Your task to perform on an android device: Search for pizza restaurants on Maps Image 0: 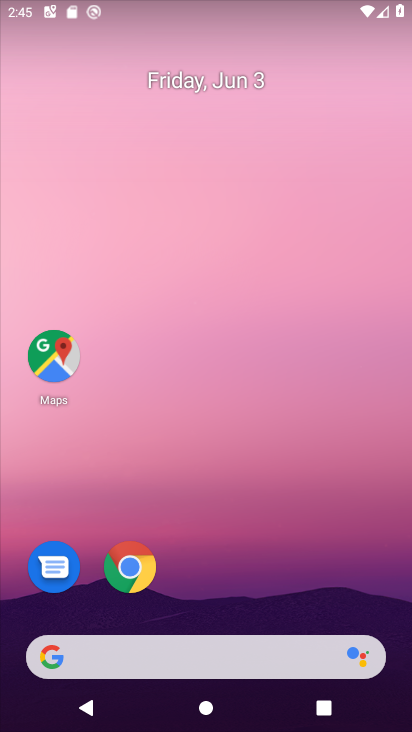
Step 0: drag from (226, 611) to (204, 238)
Your task to perform on an android device: Search for pizza restaurants on Maps Image 1: 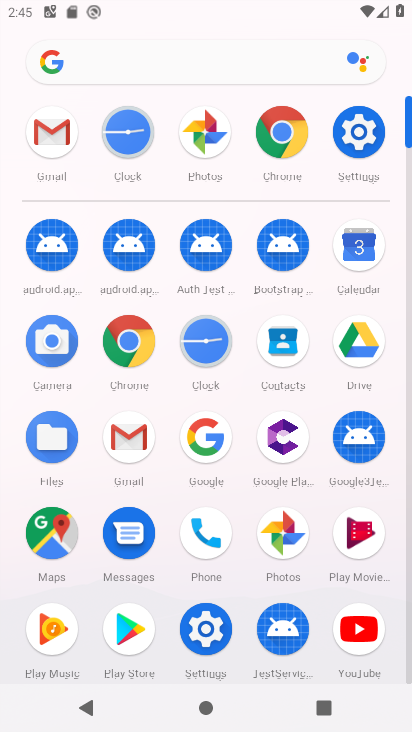
Step 1: click (57, 529)
Your task to perform on an android device: Search for pizza restaurants on Maps Image 2: 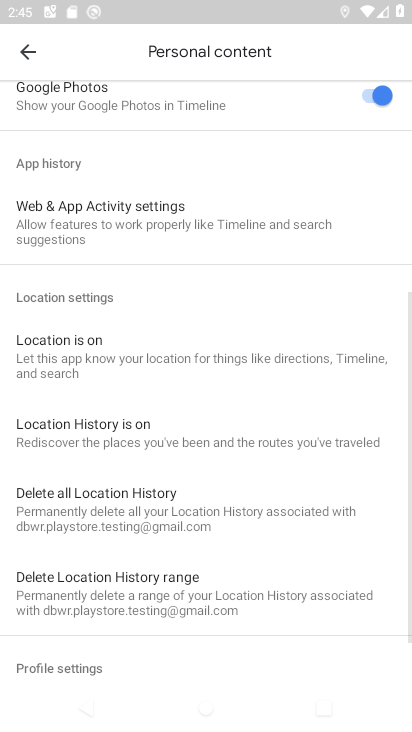
Step 2: click (44, 47)
Your task to perform on an android device: Search for pizza restaurants on Maps Image 3: 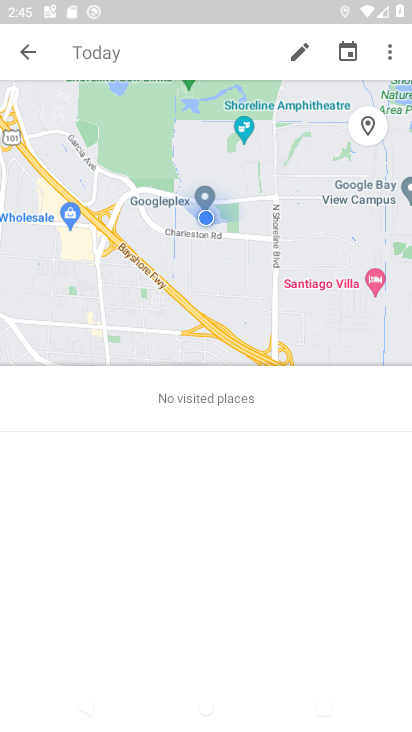
Step 3: click (45, 48)
Your task to perform on an android device: Search for pizza restaurants on Maps Image 4: 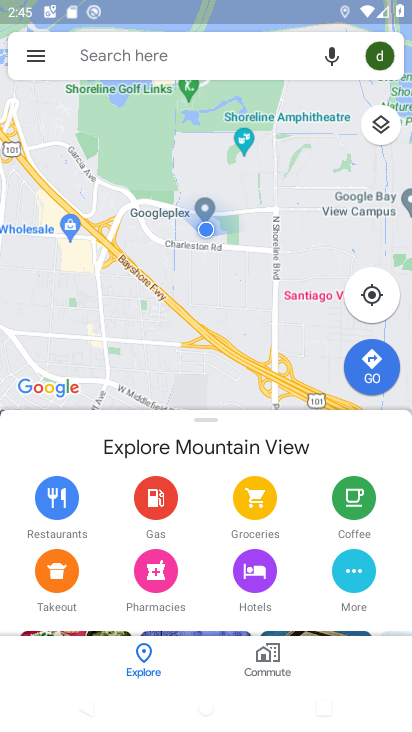
Step 4: click (170, 49)
Your task to perform on an android device: Search for pizza restaurants on Maps Image 5: 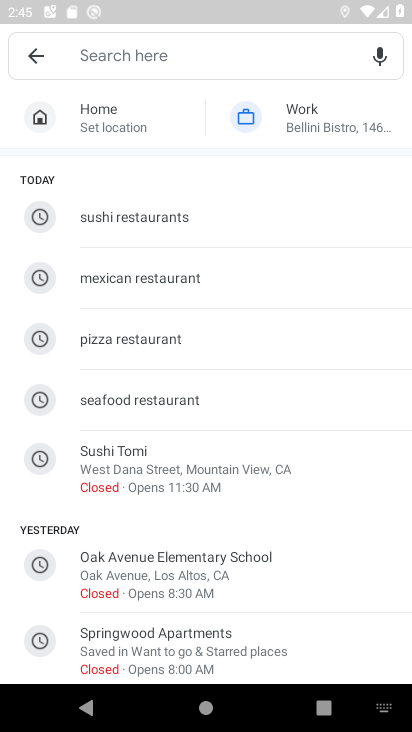
Step 5: click (163, 340)
Your task to perform on an android device: Search for pizza restaurants on Maps Image 6: 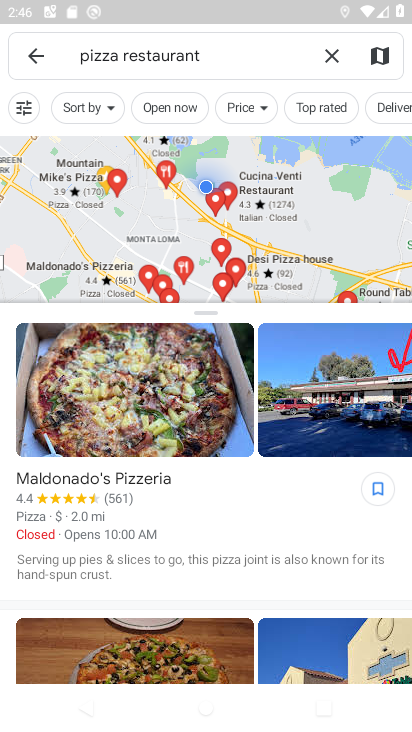
Step 6: task complete